Your task to perform on an android device: turn off sleep mode Image 0: 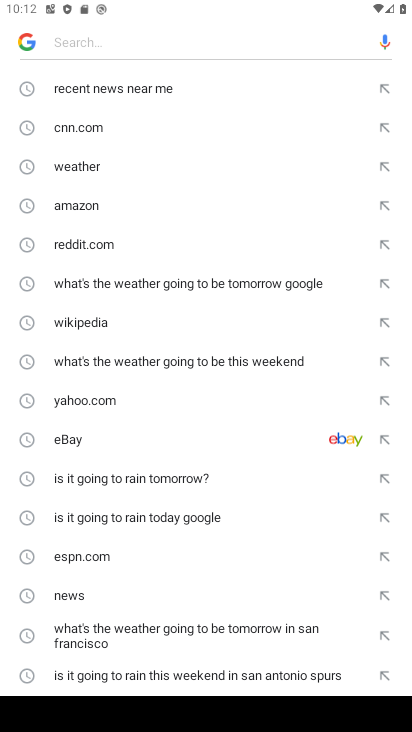
Step 0: press back button
Your task to perform on an android device: turn off sleep mode Image 1: 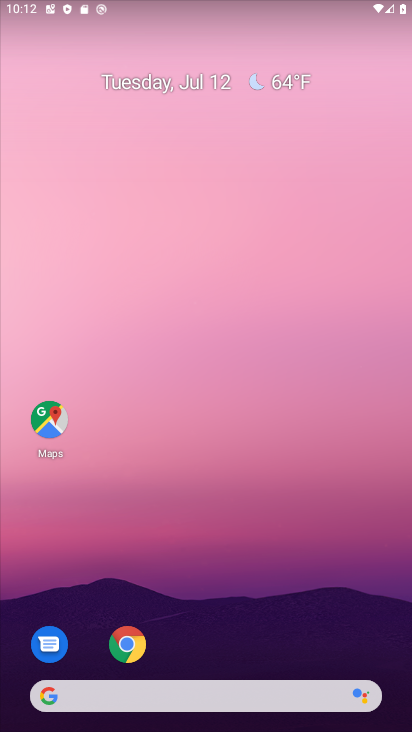
Step 1: drag from (289, 626) to (278, 226)
Your task to perform on an android device: turn off sleep mode Image 2: 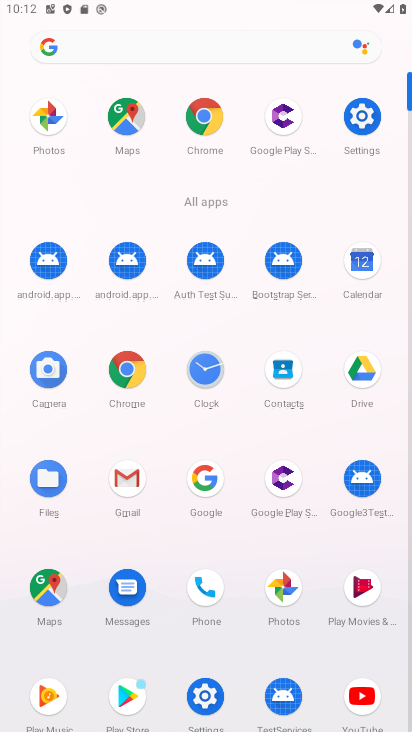
Step 2: click (344, 120)
Your task to perform on an android device: turn off sleep mode Image 3: 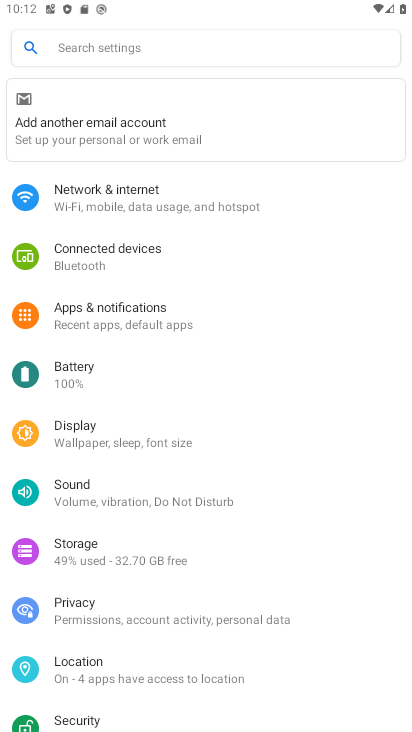
Step 3: click (212, 451)
Your task to perform on an android device: turn off sleep mode Image 4: 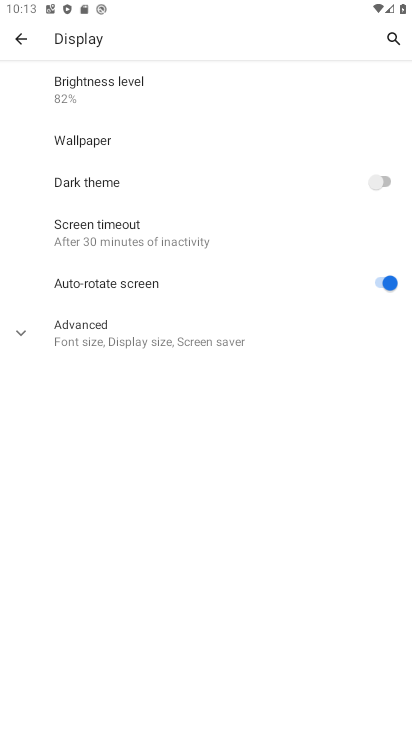
Step 4: click (155, 221)
Your task to perform on an android device: turn off sleep mode Image 5: 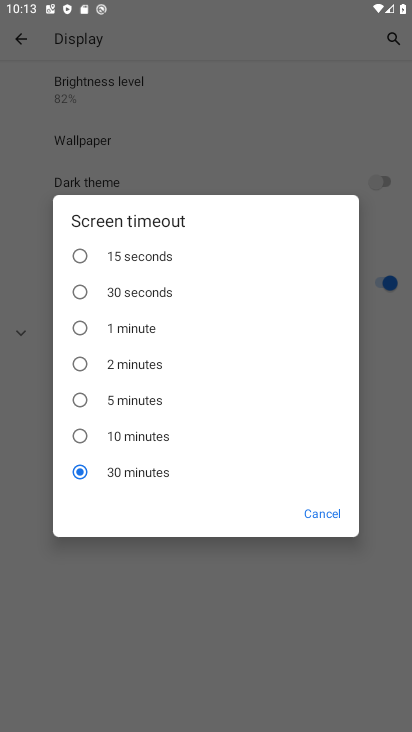
Step 5: click (158, 261)
Your task to perform on an android device: turn off sleep mode Image 6: 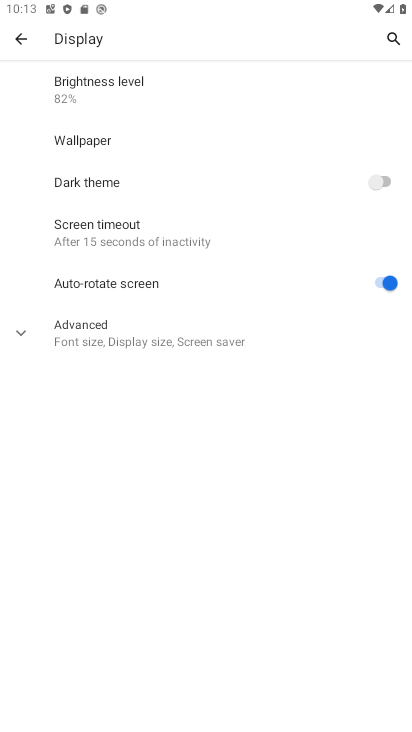
Step 6: task complete